Your task to perform on an android device: Search for vegetarian restaurants on Maps Image 0: 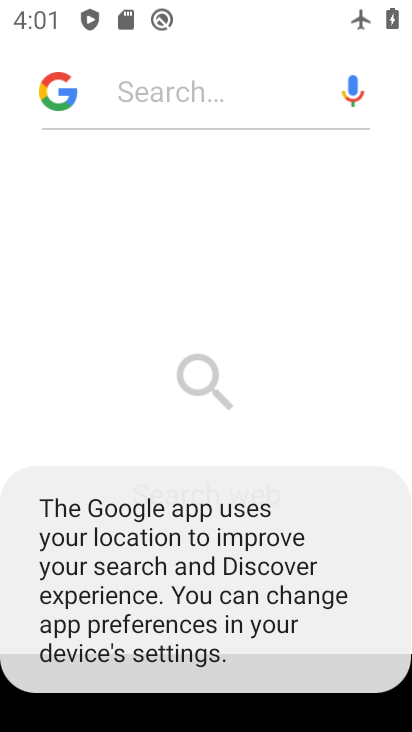
Step 0: press home button
Your task to perform on an android device: Search for vegetarian restaurants on Maps Image 1: 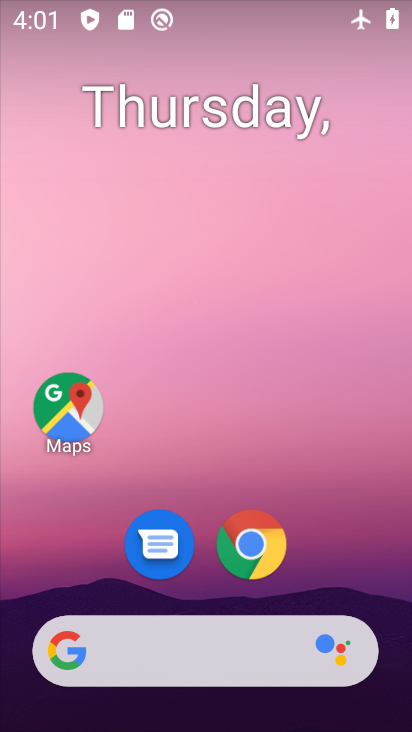
Step 1: click (76, 433)
Your task to perform on an android device: Search for vegetarian restaurants on Maps Image 2: 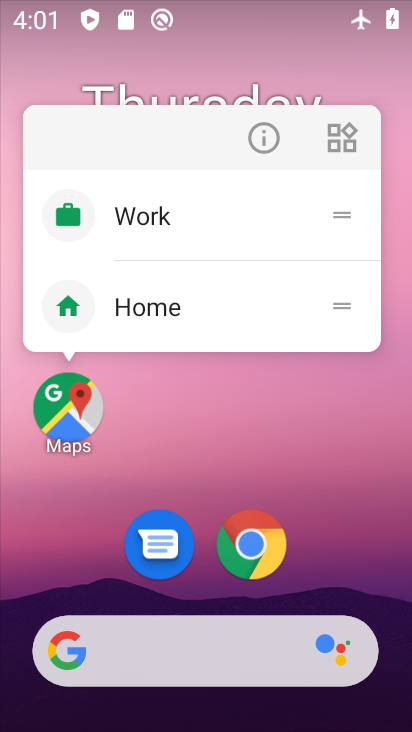
Step 2: click (77, 433)
Your task to perform on an android device: Search for vegetarian restaurants on Maps Image 3: 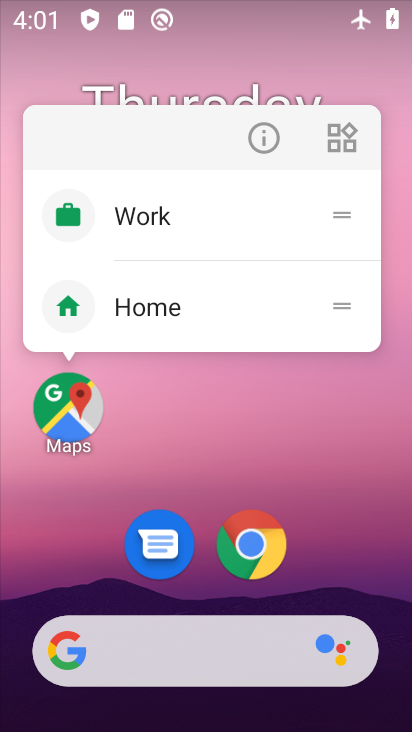
Step 3: click (77, 433)
Your task to perform on an android device: Search for vegetarian restaurants on Maps Image 4: 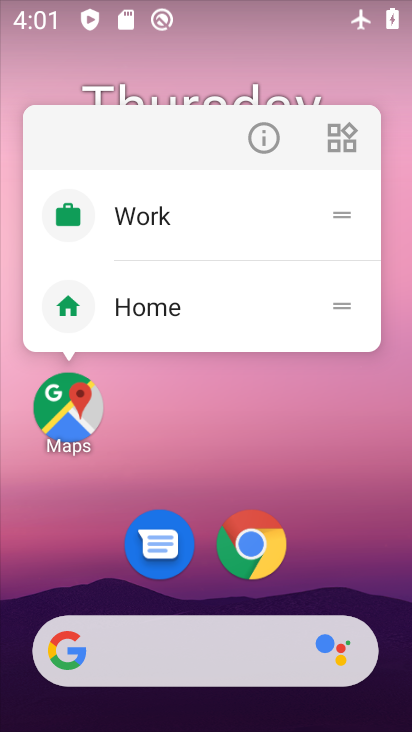
Step 4: click (70, 431)
Your task to perform on an android device: Search for vegetarian restaurants on Maps Image 5: 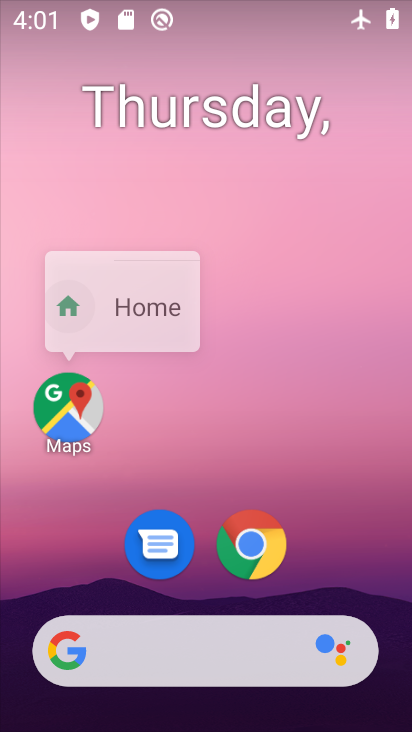
Step 5: click (70, 431)
Your task to perform on an android device: Search for vegetarian restaurants on Maps Image 6: 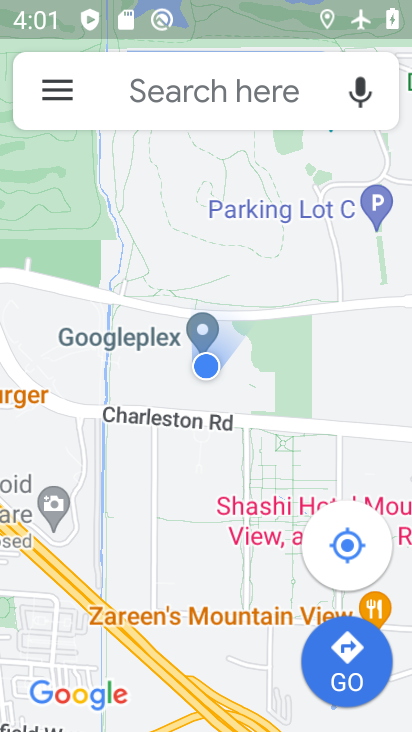
Step 6: click (118, 86)
Your task to perform on an android device: Search for vegetarian restaurants on Maps Image 7: 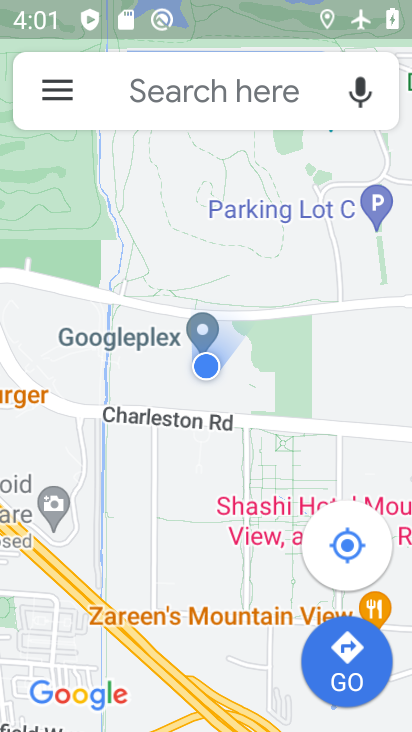
Step 7: click (147, 97)
Your task to perform on an android device: Search for vegetarian restaurants on Maps Image 8: 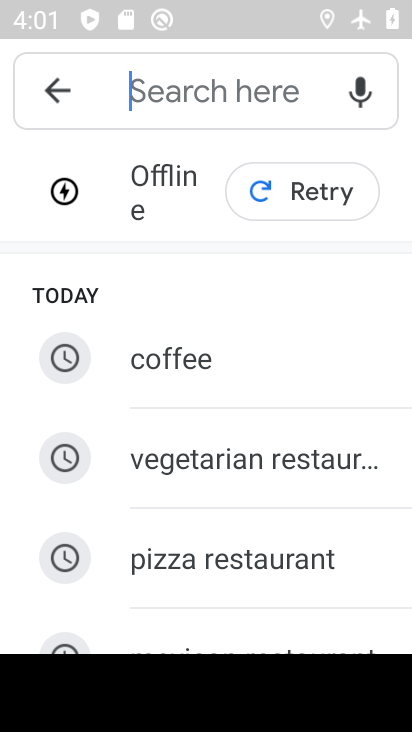
Step 8: click (228, 458)
Your task to perform on an android device: Search for vegetarian restaurants on Maps Image 9: 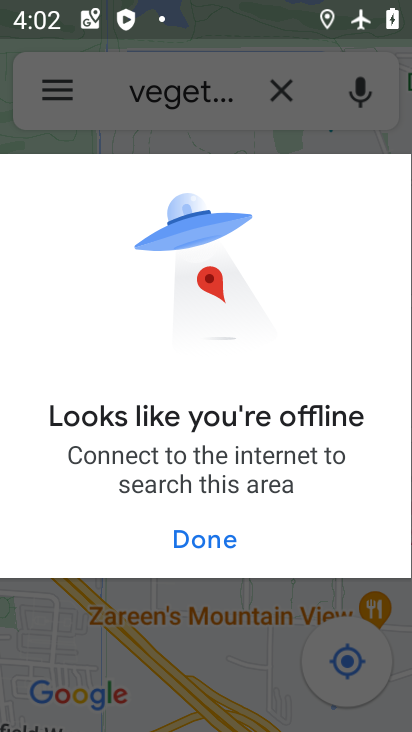
Step 9: click (196, 539)
Your task to perform on an android device: Search for vegetarian restaurants on Maps Image 10: 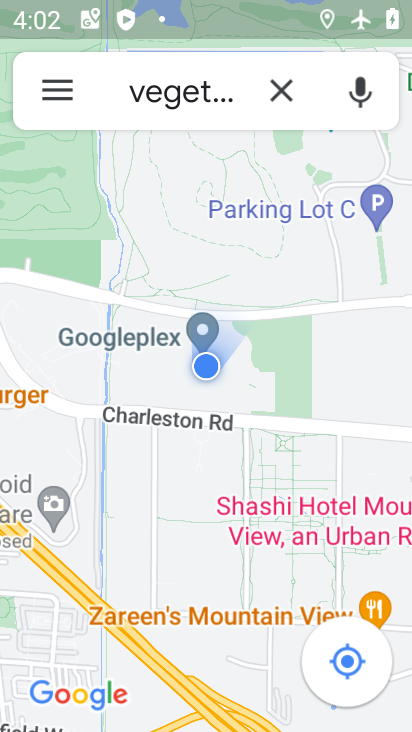
Step 10: drag from (276, 114) to (372, 536)
Your task to perform on an android device: Search for vegetarian restaurants on Maps Image 11: 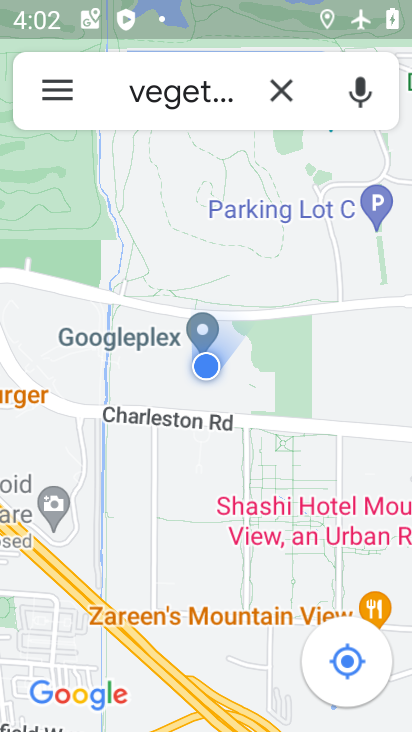
Step 11: drag from (216, 5) to (275, 605)
Your task to perform on an android device: Search for vegetarian restaurants on Maps Image 12: 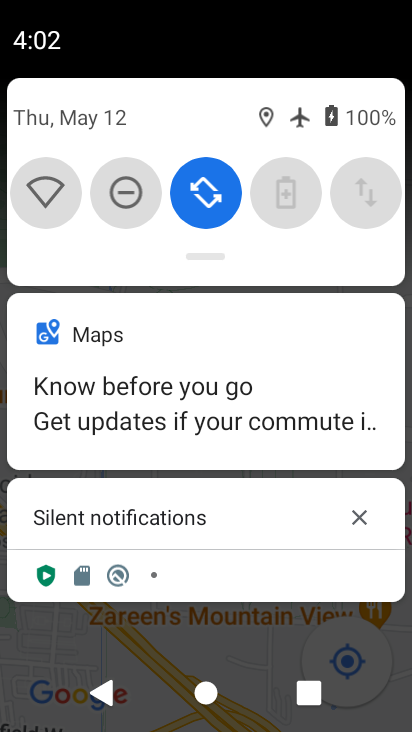
Step 12: drag from (224, 636) to (171, 168)
Your task to perform on an android device: Search for vegetarian restaurants on Maps Image 13: 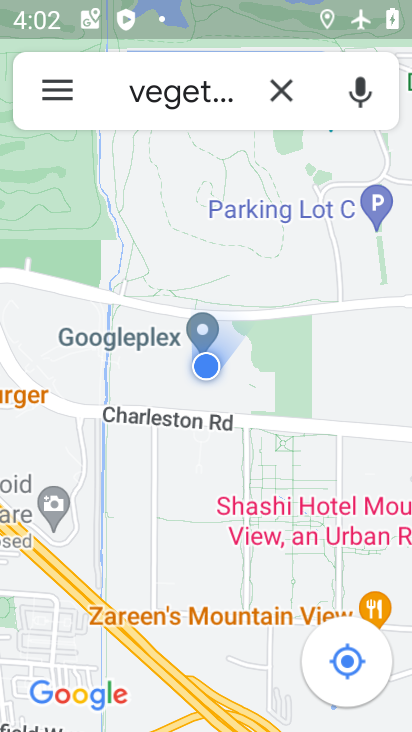
Step 13: press back button
Your task to perform on an android device: Search for vegetarian restaurants on Maps Image 14: 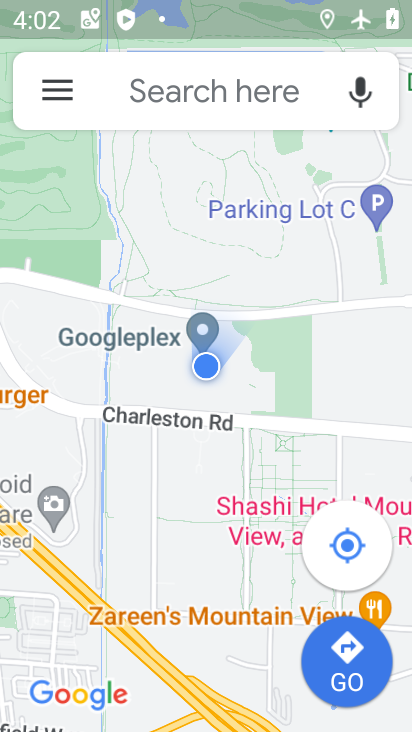
Step 14: press home button
Your task to perform on an android device: Search for vegetarian restaurants on Maps Image 15: 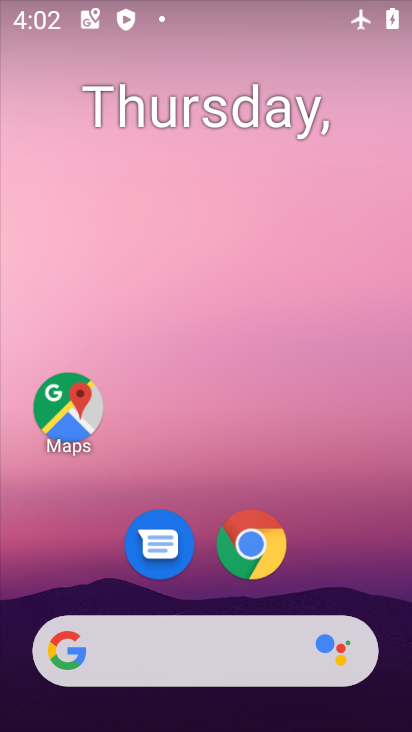
Step 15: drag from (288, 694) to (279, 175)
Your task to perform on an android device: Search for vegetarian restaurants on Maps Image 16: 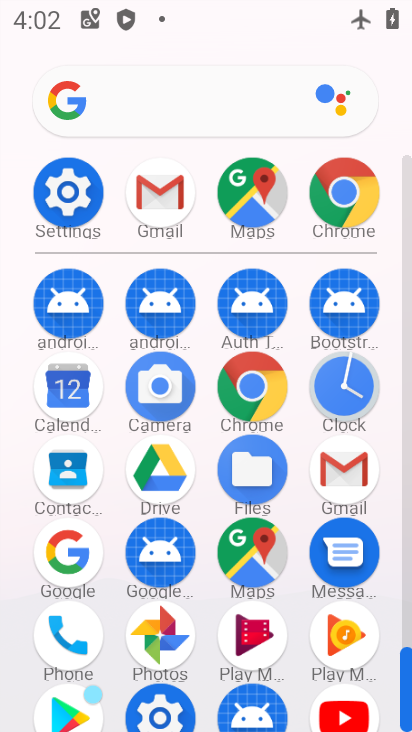
Step 16: click (69, 194)
Your task to perform on an android device: Search for vegetarian restaurants on Maps Image 17: 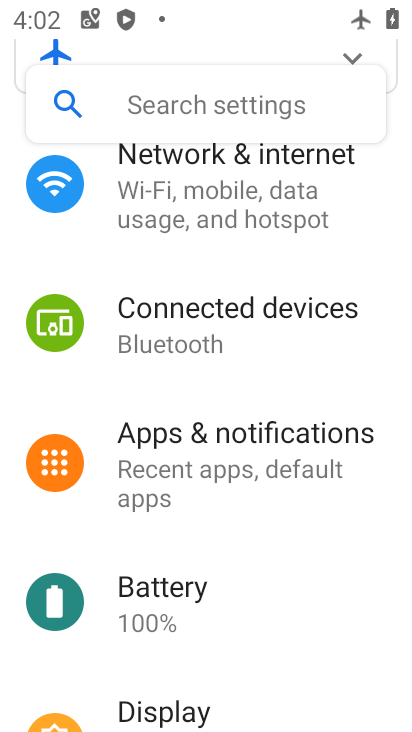
Step 17: drag from (220, 208) to (272, 474)
Your task to perform on an android device: Search for vegetarian restaurants on Maps Image 18: 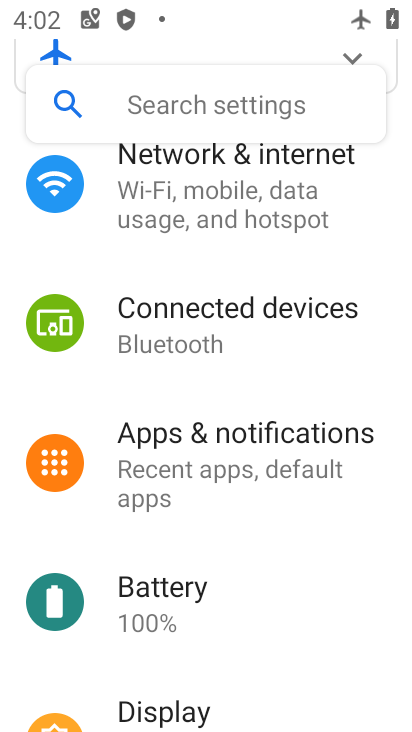
Step 18: drag from (219, 194) to (289, 504)
Your task to perform on an android device: Search for vegetarian restaurants on Maps Image 19: 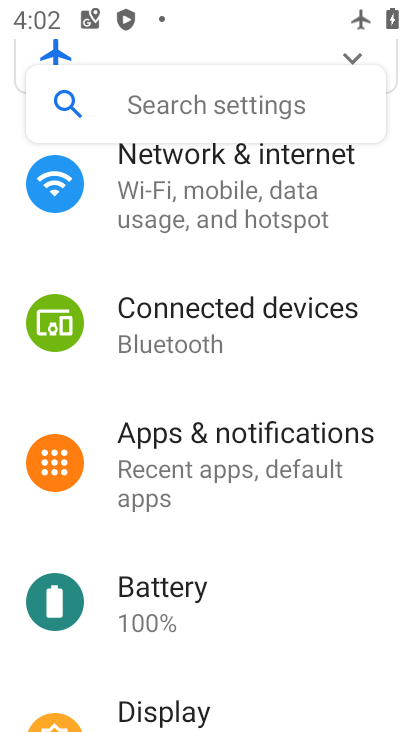
Step 19: drag from (200, 186) to (219, 461)
Your task to perform on an android device: Search for vegetarian restaurants on Maps Image 20: 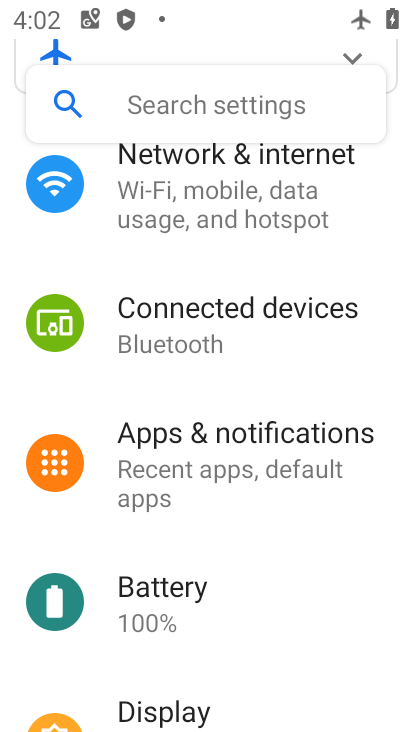
Step 20: drag from (257, 575) to (258, 198)
Your task to perform on an android device: Search for vegetarian restaurants on Maps Image 21: 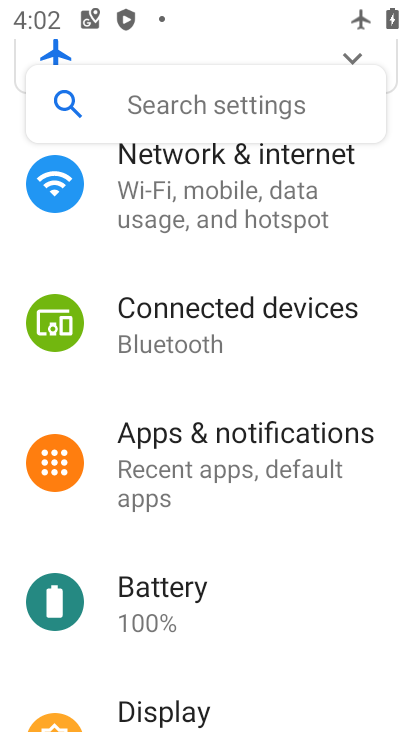
Step 21: press home button
Your task to perform on an android device: Search for vegetarian restaurants on Maps Image 22: 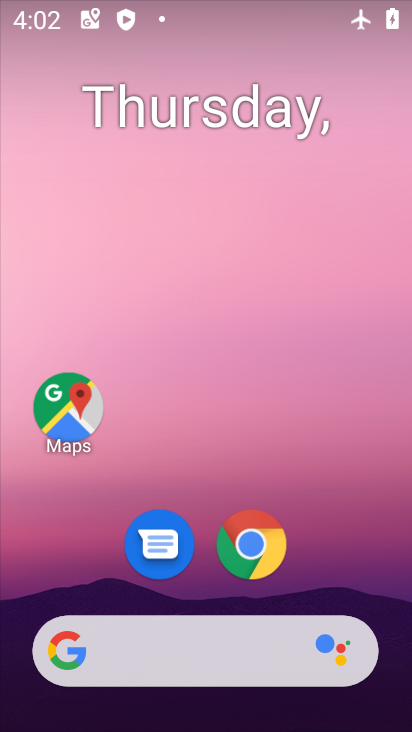
Step 22: drag from (327, 543) to (272, 8)
Your task to perform on an android device: Search for vegetarian restaurants on Maps Image 23: 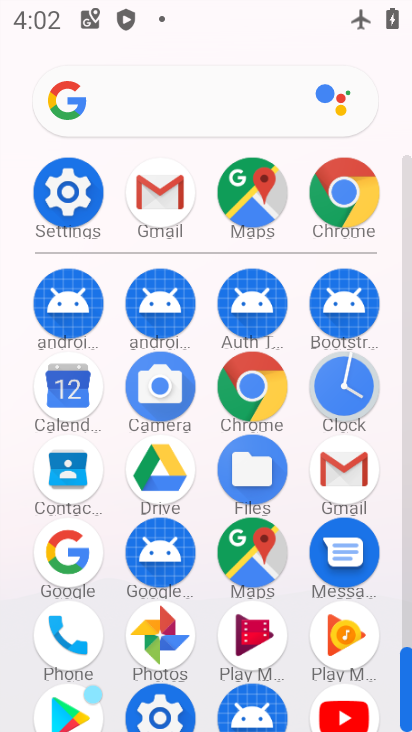
Step 23: click (75, 181)
Your task to perform on an android device: Search for vegetarian restaurants on Maps Image 24: 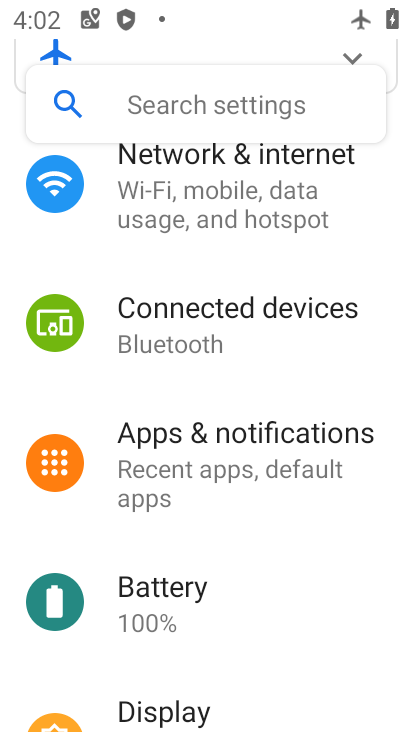
Step 24: click (178, 185)
Your task to perform on an android device: Search for vegetarian restaurants on Maps Image 25: 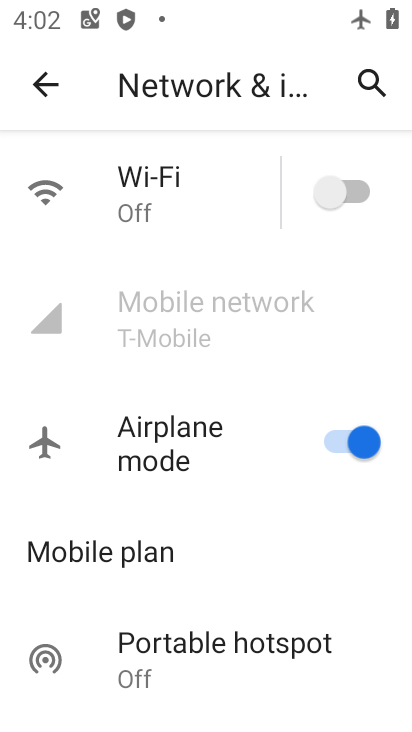
Step 25: click (354, 452)
Your task to perform on an android device: Search for vegetarian restaurants on Maps Image 26: 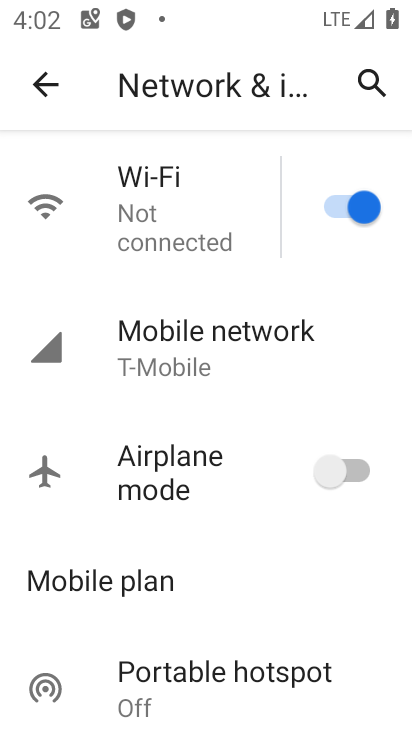
Step 26: press home button
Your task to perform on an android device: Search for vegetarian restaurants on Maps Image 27: 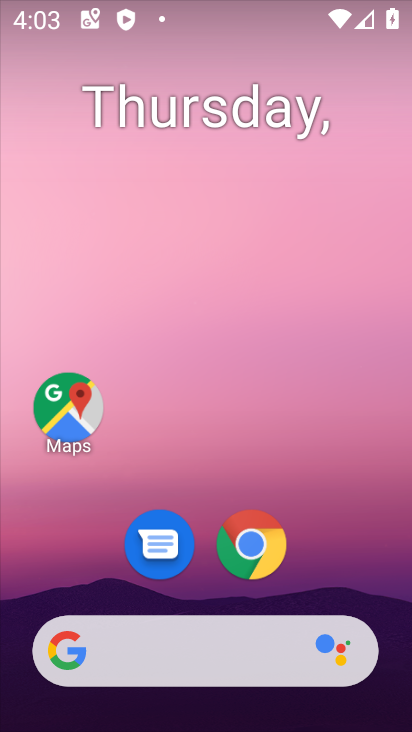
Step 27: click (64, 418)
Your task to perform on an android device: Search for vegetarian restaurants on Maps Image 28: 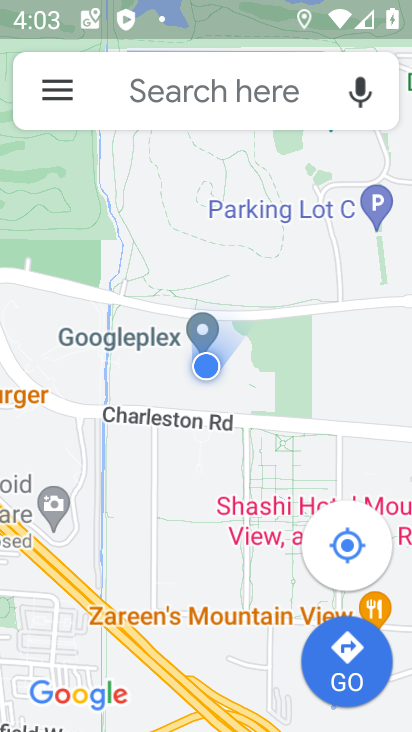
Step 28: click (162, 97)
Your task to perform on an android device: Search for vegetarian restaurants on Maps Image 29: 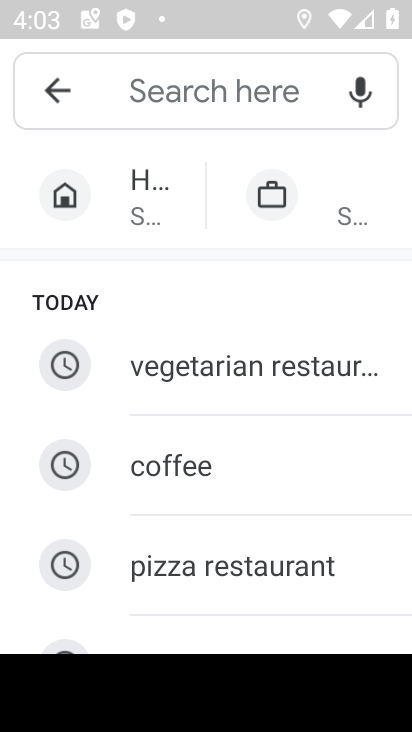
Step 29: click (216, 358)
Your task to perform on an android device: Search for vegetarian restaurants on Maps Image 30: 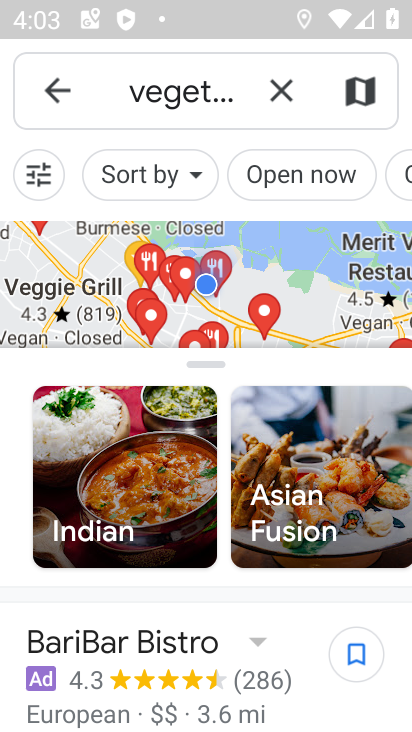
Step 30: press home button
Your task to perform on an android device: Search for vegetarian restaurants on Maps Image 31: 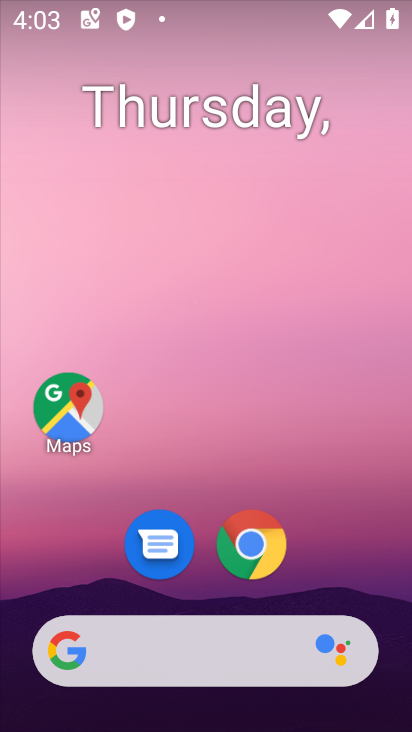
Step 31: drag from (341, 545) to (353, 232)
Your task to perform on an android device: Search for vegetarian restaurants on Maps Image 32: 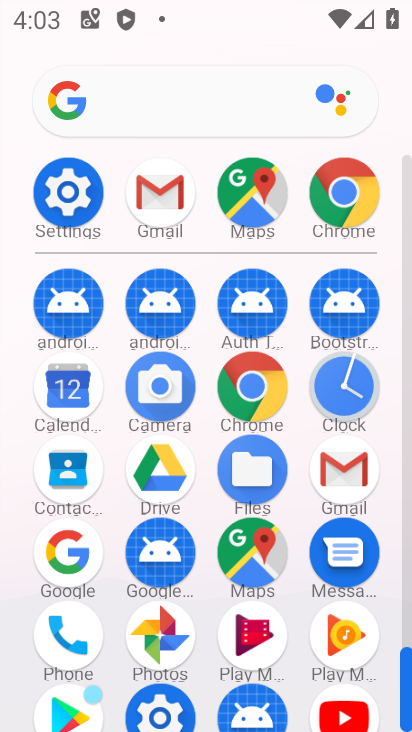
Step 32: click (337, 220)
Your task to perform on an android device: Search for vegetarian restaurants on Maps Image 33: 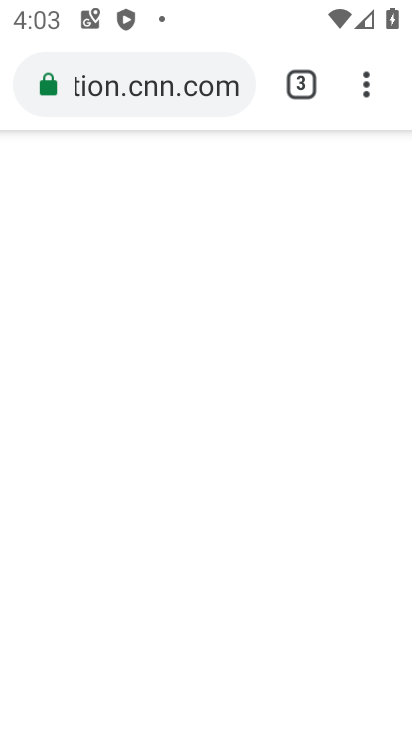
Step 33: press home button
Your task to perform on an android device: Search for vegetarian restaurants on Maps Image 34: 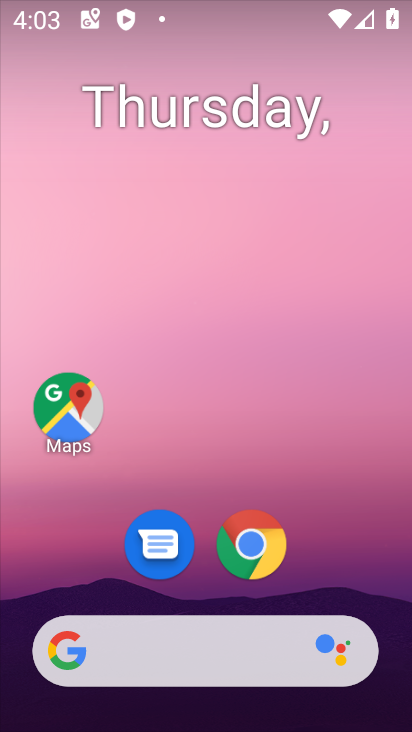
Step 34: click (59, 416)
Your task to perform on an android device: Search for vegetarian restaurants on Maps Image 35: 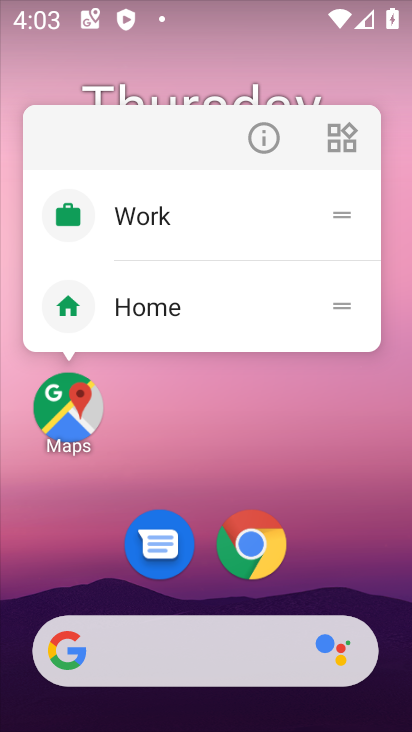
Step 35: click (66, 385)
Your task to perform on an android device: Search for vegetarian restaurants on Maps Image 36: 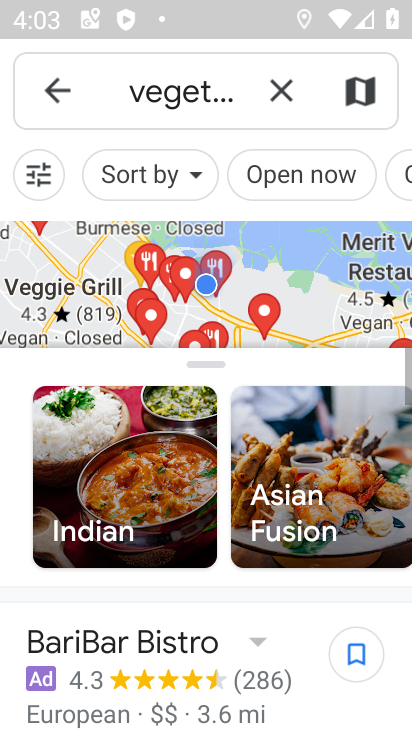
Step 36: task complete